Your task to perform on an android device: Show me productivity apps on the Play Store Image 0: 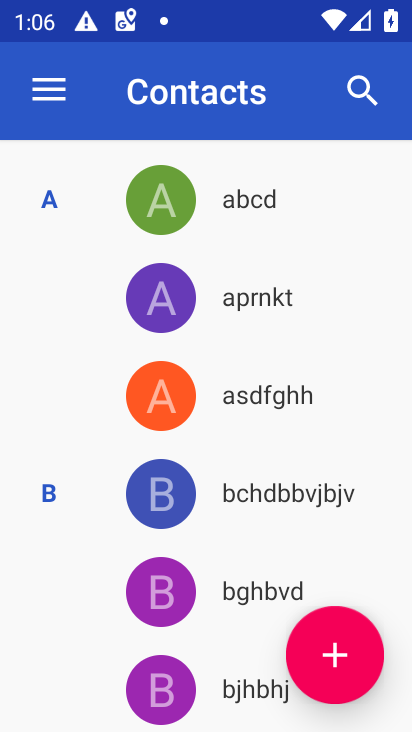
Step 0: press home button
Your task to perform on an android device: Show me productivity apps on the Play Store Image 1: 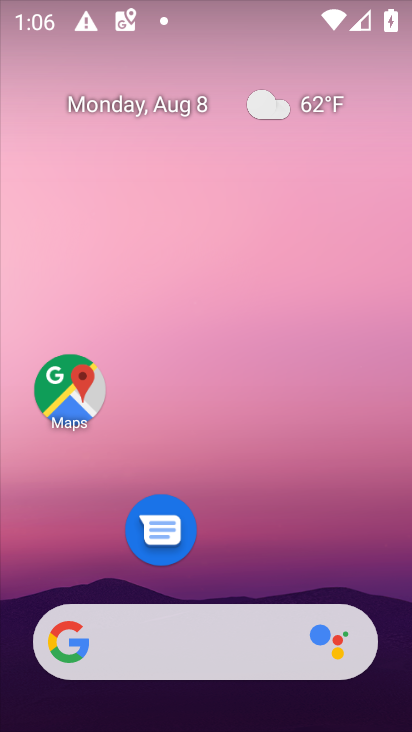
Step 1: drag from (222, 589) to (249, 68)
Your task to perform on an android device: Show me productivity apps on the Play Store Image 2: 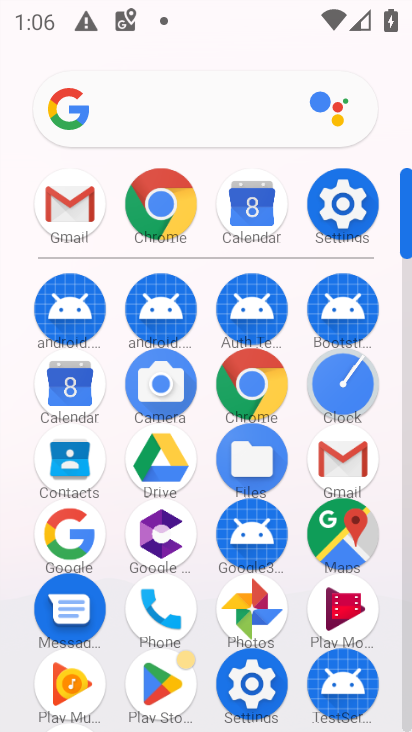
Step 2: click (156, 670)
Your task to perform on an android device: Show me productivity apps on the Play Store Image 3: 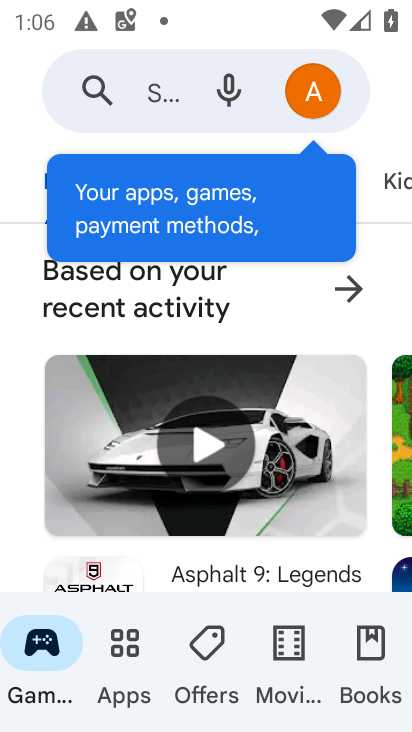
Step 3: click (122, 646)
Your task to perform on an android device: Show me productivity apps on the Play Store Image 4: 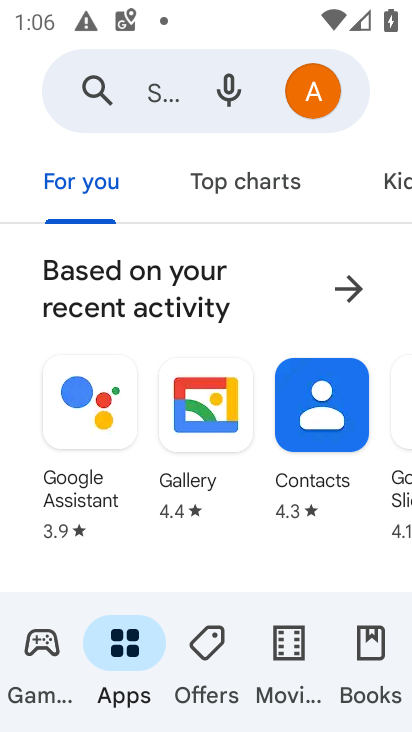
Step 4: drag from (400, 185) to (204, 180)
Your task to perform on an android device: Show me productivity apps on the Play Store Image 5: 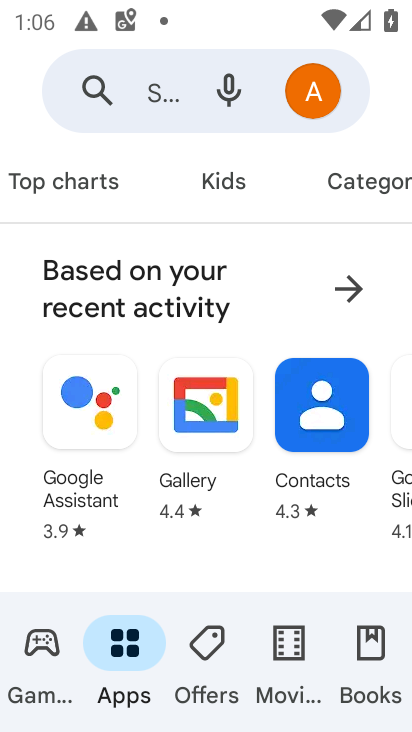
Step 5: click (365, 182)
Your task to perform on an android device: Show me productivity apps on the Play Store Image 6: 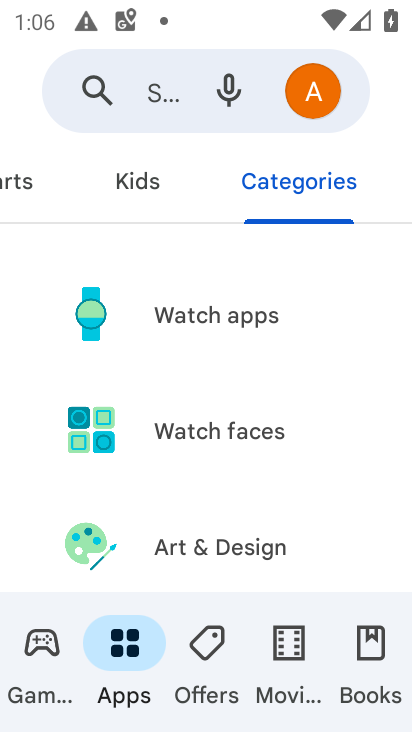
Step 6: drag from (169, 572) to (165, 274)
Your task to perform on an android device: Show me productivity apps on the Play Store Image 7: 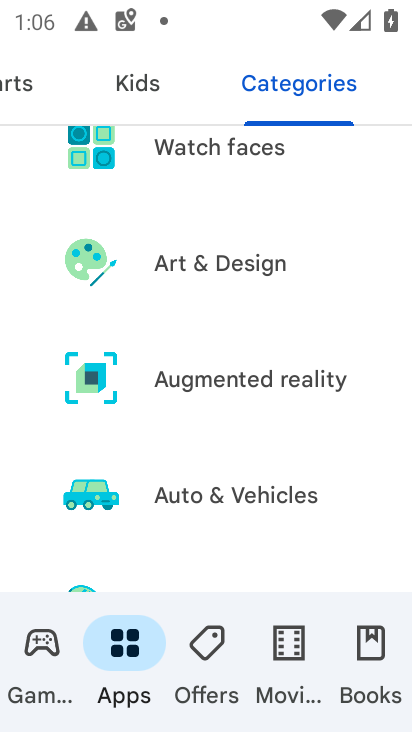
Step 7: drag from (249, 564) to (220, 320)
Your task to perform on an android device: Show me productivity apps on the Play Store Image 8: 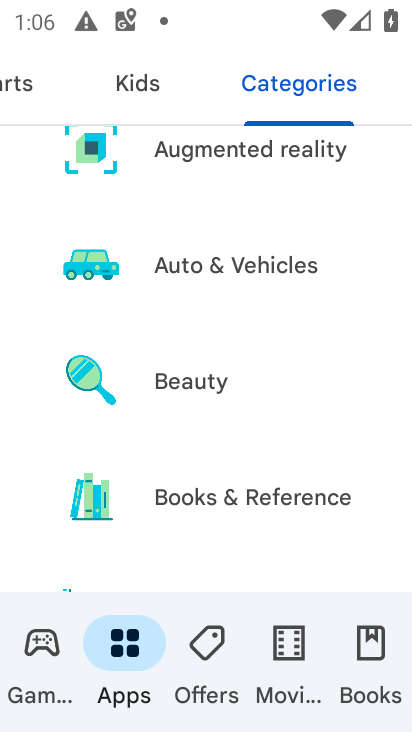
Step 8: drag from (212, 530) to (190, 202)
Your task to perform on an android device: Show me productivity apps on the Play Store Image 9: 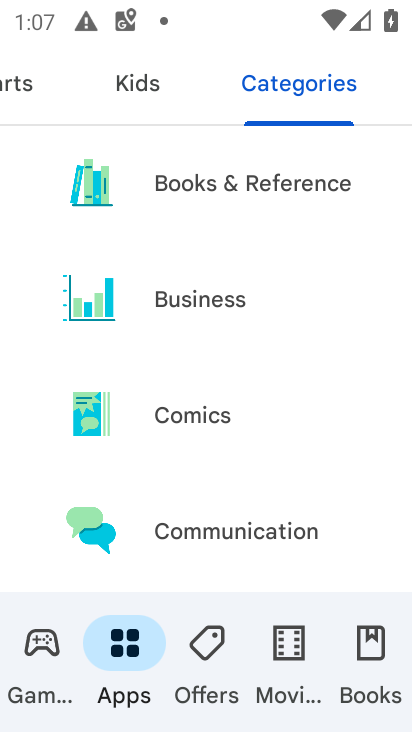
Step 9: drag from (216, 559) to (211, 221)
Your task to perform on an android device: Show me productivity apps on the Play Store Image 10: 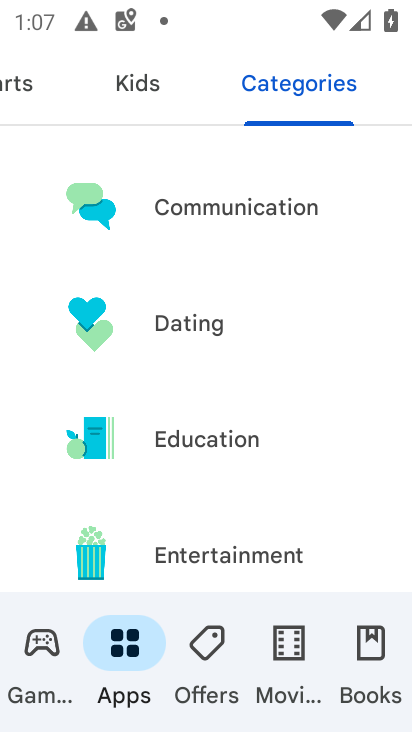
Step 10: drag from (223, 548) to (208, 157)
Your task to perform on an android device: Show me productivity apps on the Play Store Image 11: 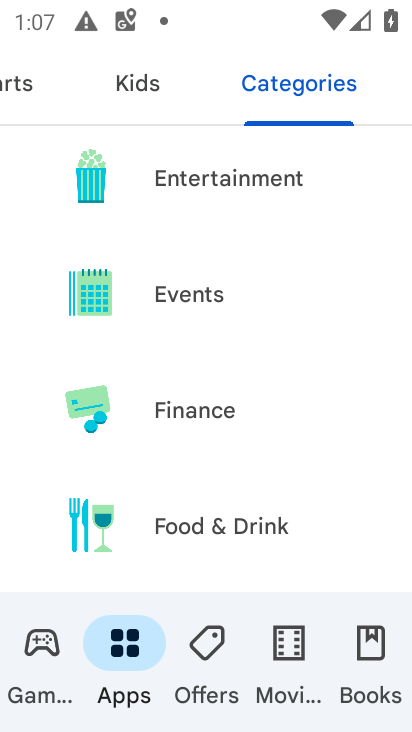
Step 11: drag from (215, 568) to (221, 247)
Your task to perform on an android device: Show me productivity apps on the Play Store Image 12: 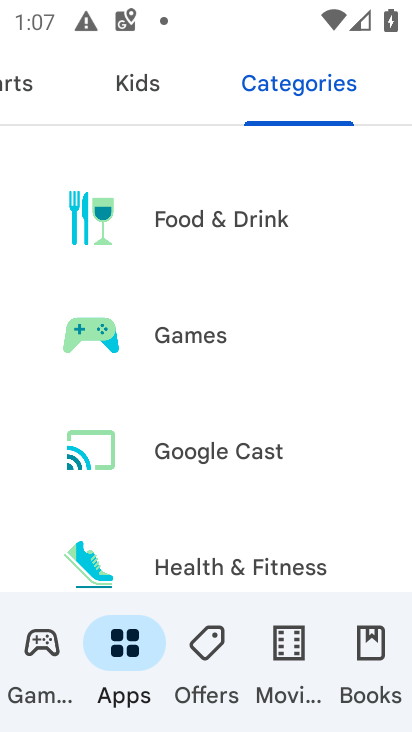
Step 12: drag from (184, 554) to (178, 267)
Your task to perform on an android device: Show me productivity apps on the Play Store Image 13: 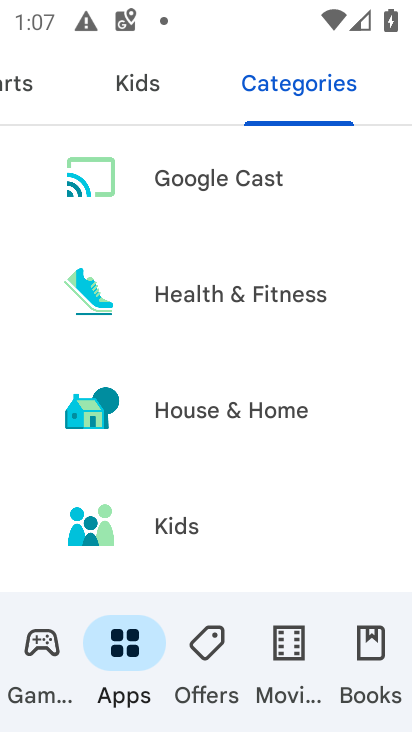
Step 13: drag from (231, 568) to (262, 229)
Your task to perform on an android device: Show me productivity apps on the Play Store Image 14: 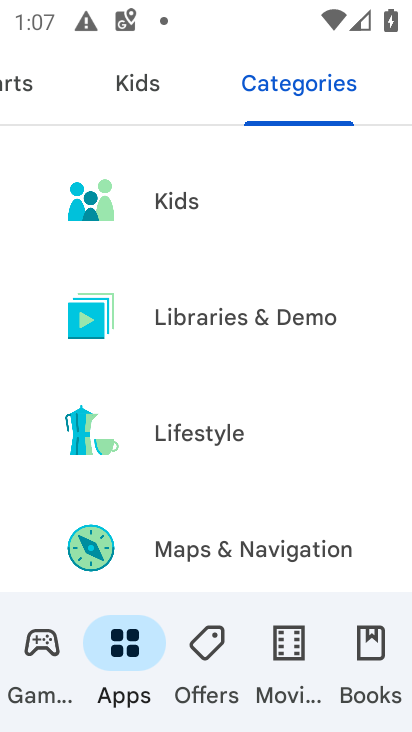
Step 14: drag from (210, 557) to (213, 213)
Your task to perform on an android device: Show me productivity apps on the Play Store Image 15: 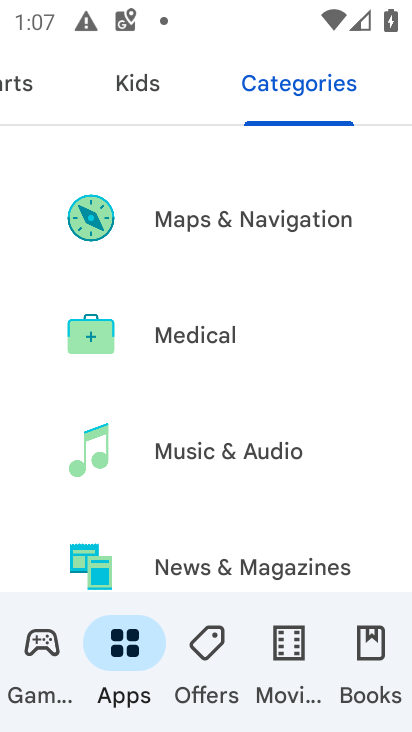
Step 15: drag from (244, 557) to (222, 300)
Your task to perform on an android device: Show me productivity apps on the Play Store Image 16: 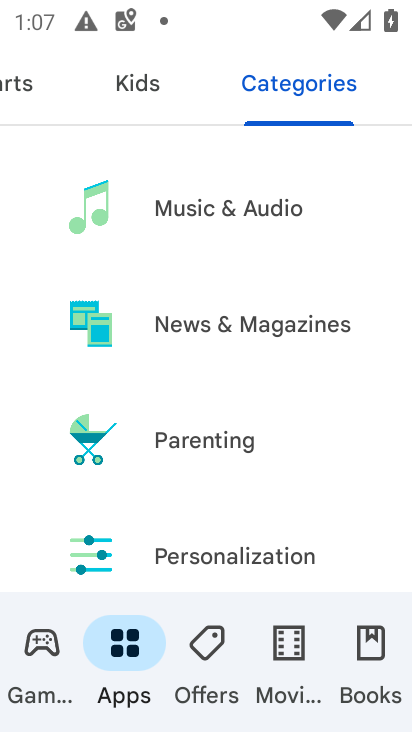
Step 16: drag from (259, 555) to (313, 202)
Your task to perform on an android device: Show me productivity apps on the Play Store Image 17: 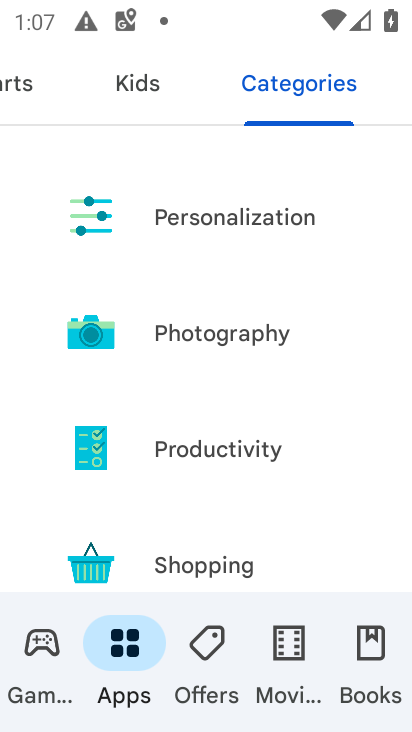
Step 17: click (232, 446)
Your task to perform on an android device: Show me productivity apps on the Play Store Image 18: 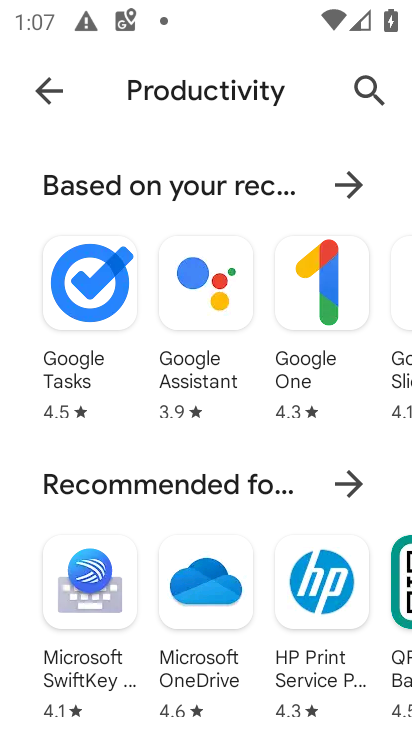
Step 18: task complete